Your task to perform on an android device: open app "Booking.com: Hotels and more" (install if not already installed) Image 0: 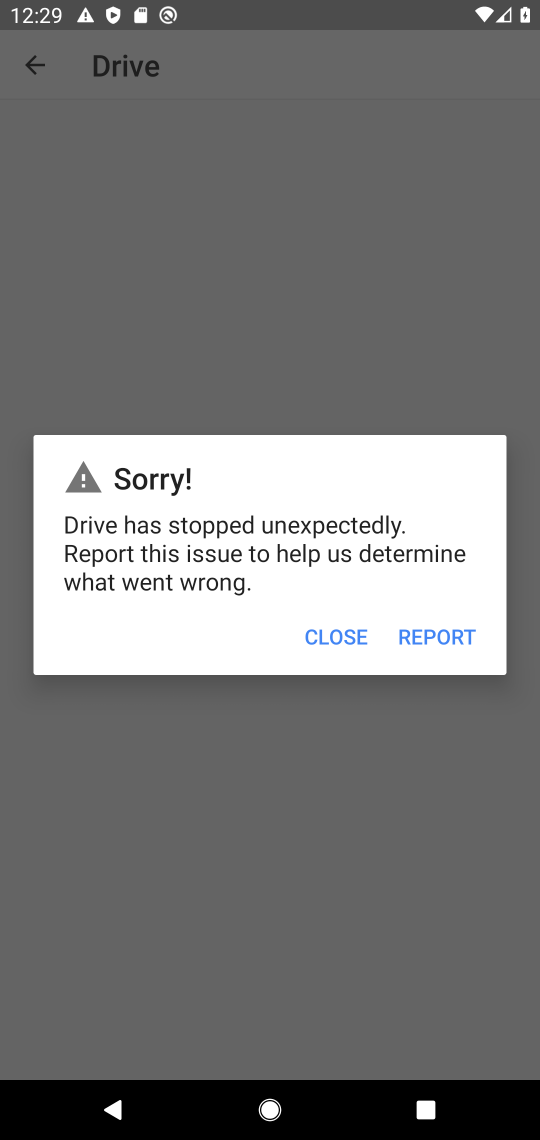
Step 0: press home button
Your task to perform on an android device: open app "Booking.com: Hotels and more" (install if not already installed) Image 1: 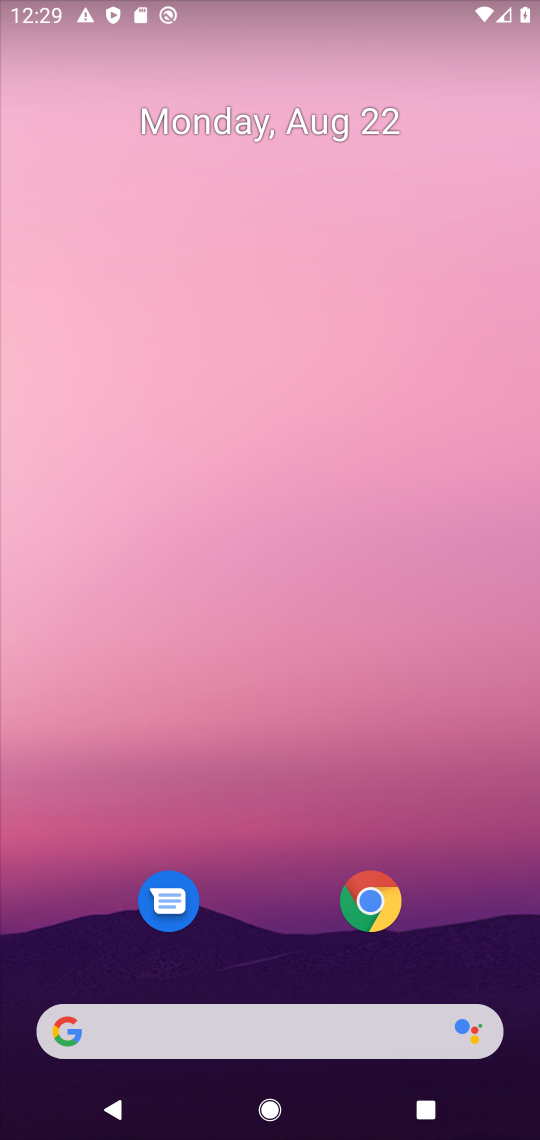
Step 1: drag from (315, 1020) to (256, 285)
Your task to perform on an android device: open app "Booking.com: Hotels and more" (install if not already installed) Image 2: 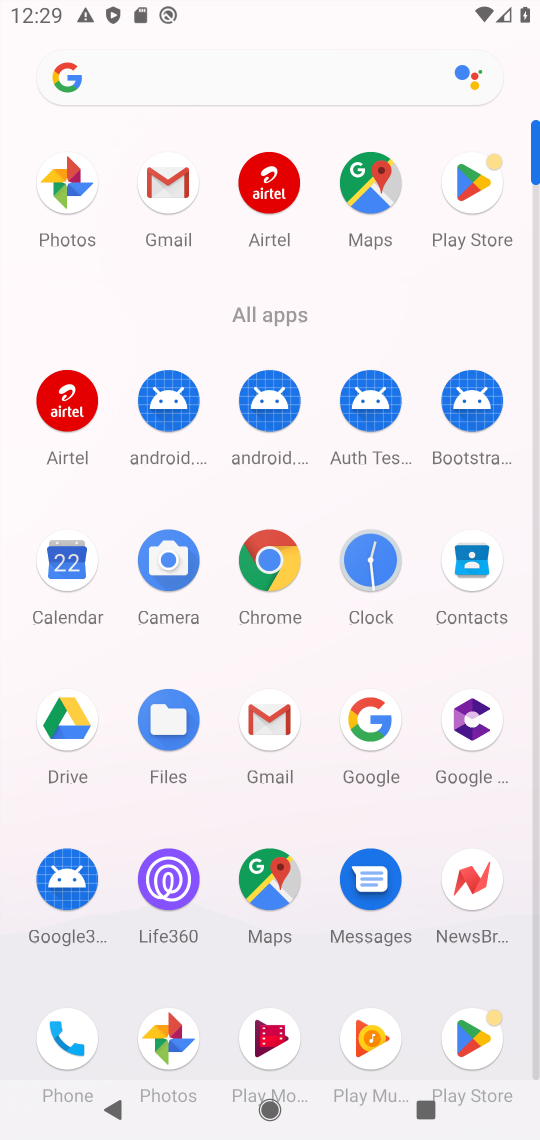
Step 2: click (476, 189)
Your task to perform on an android device: open app "Booking.com: Hotels and more" (install if not already installed) Image 3: 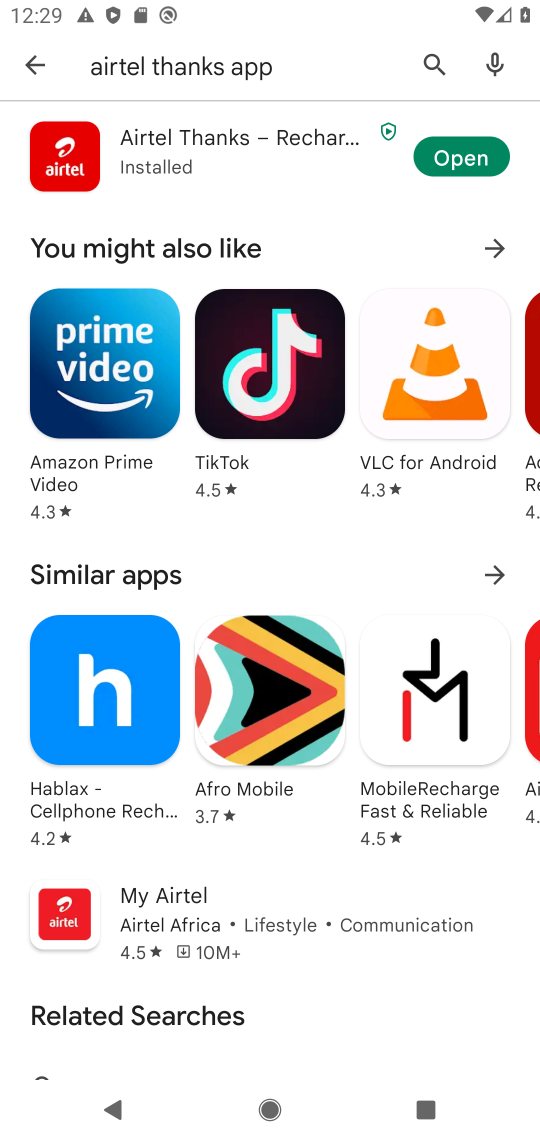
Step 3: click (432, 65)
Your task to perform on an android device: open app "Booking.com: Hotels and more" (install if not already installed) Image 4: 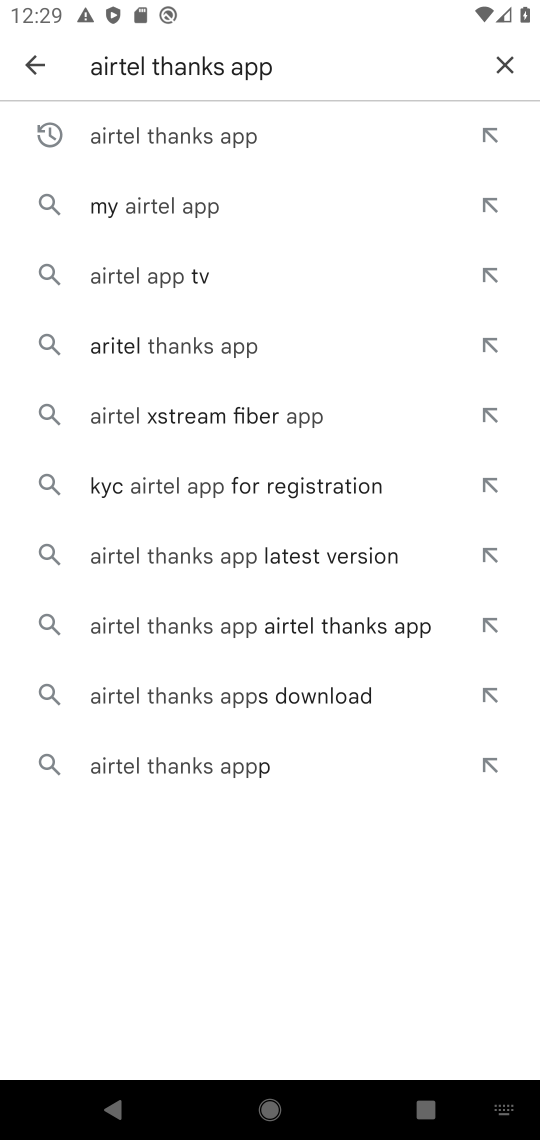
Step 4: click (505, 65)
Your task to perform on an android device: open app "Booking.com: Hotels and more" (install if not already installed) Image 5: 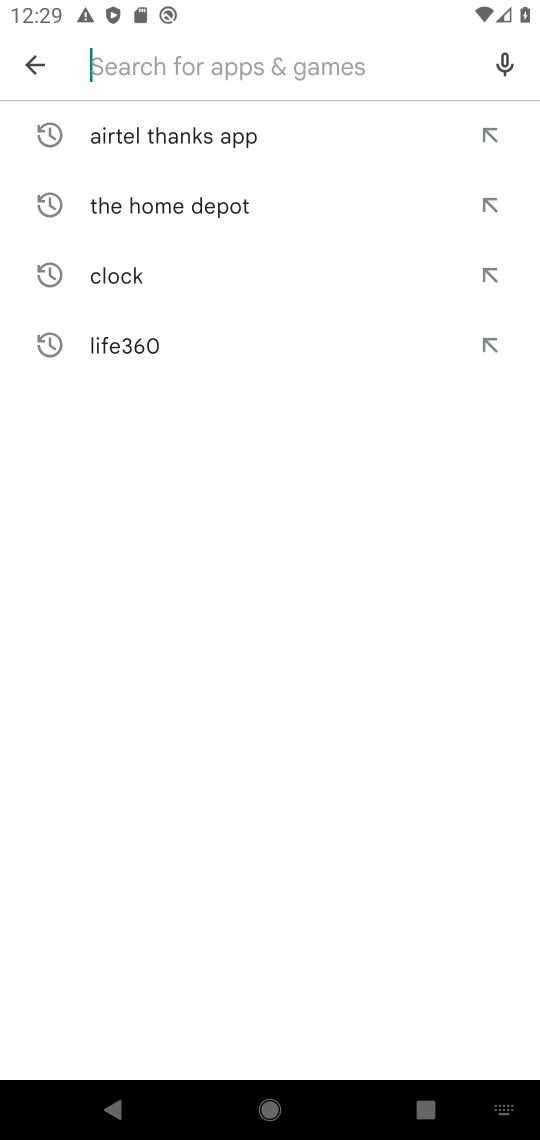
Step 5: type "booking.com"
Your task to perform on an android device: open app "Booking.com: Hotels and more" (install if not already installed) Image 6: 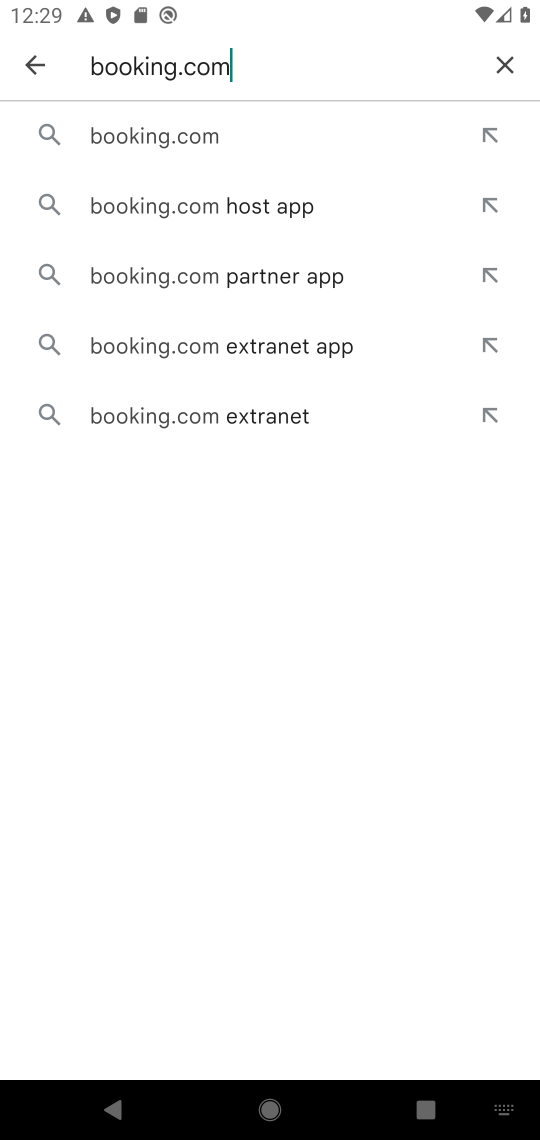
Step 6: click (160, 122)
Your task to perform on an android device: open app "Booking.com: Hotels and more" (install if not already installed) Image 7: 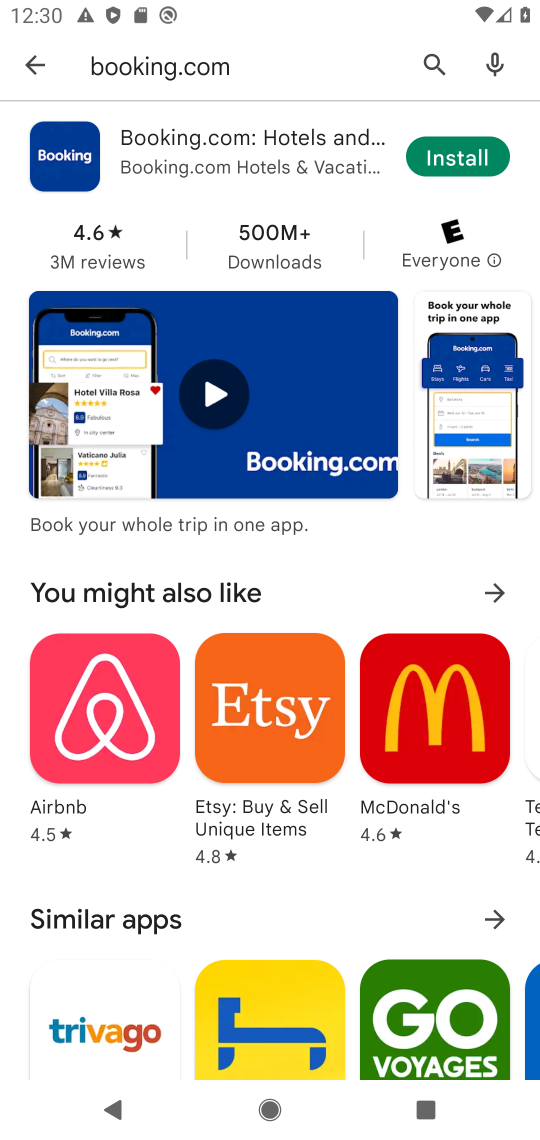
Step 7: click (435, 146)
Your task to perform on an android device: open app "Booking.com: Hotels and more" (install if not already installed) Image 8: 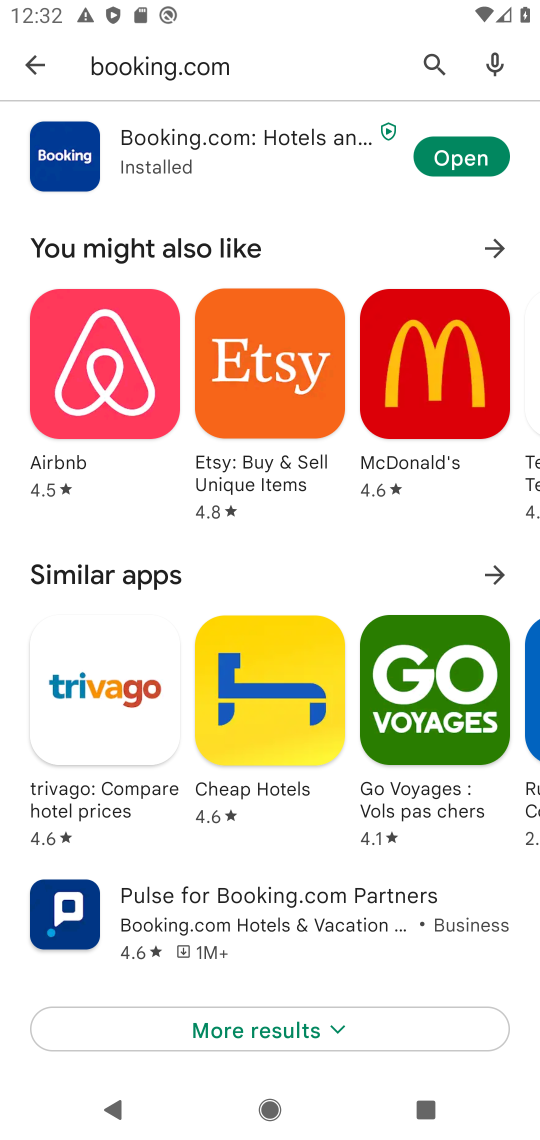
Step 8: click (482, 173)
Your task to perform on an android device: open app "Booking.com: Hotels and more" (install if not already installed) Image 9: 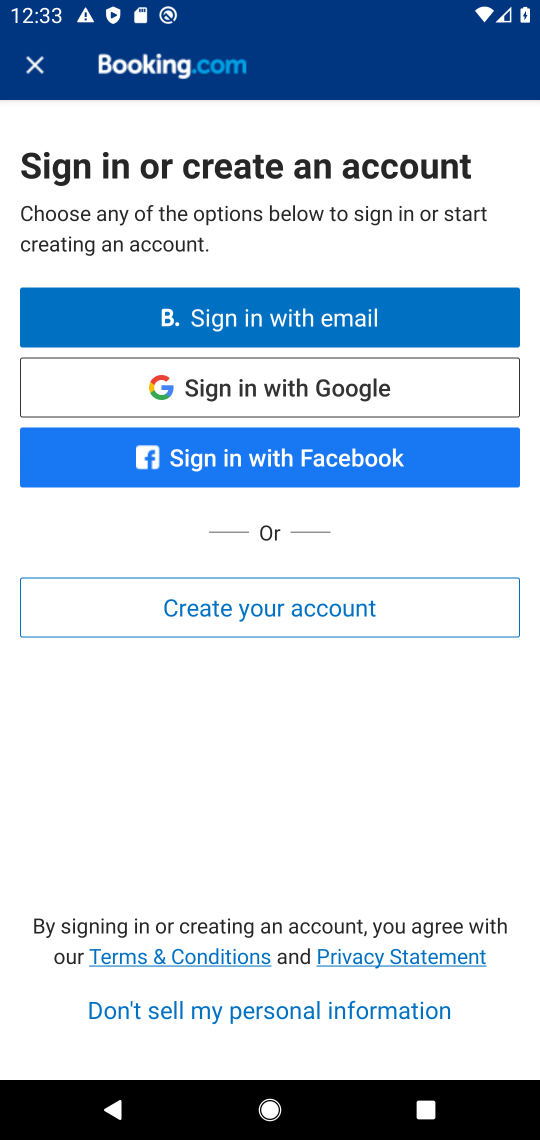
Step 9: task complete